Your task to perform on an android device: Go to Google Image 0: 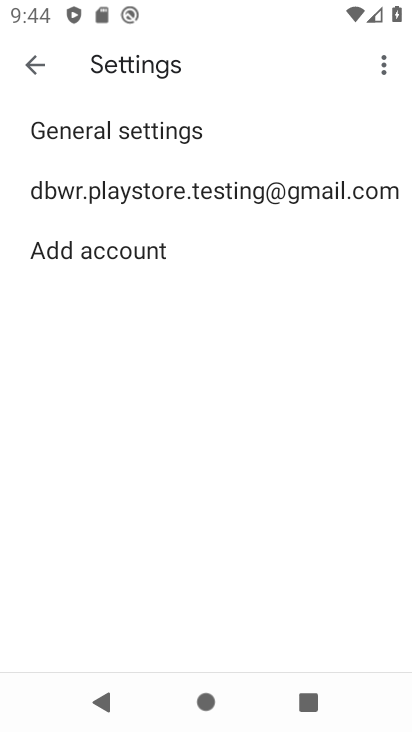
Step 0: press home button
Your task to perform on an android device: Go to Google Image 1: 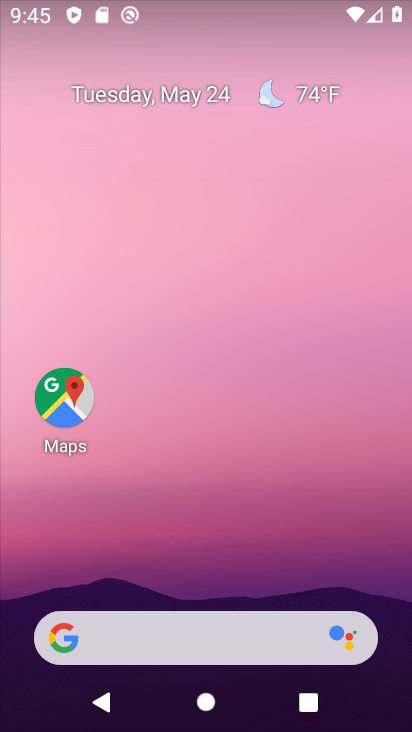
Step 1: click (147, 625)
Your task to perform on an android device: Go to Google Image 2: 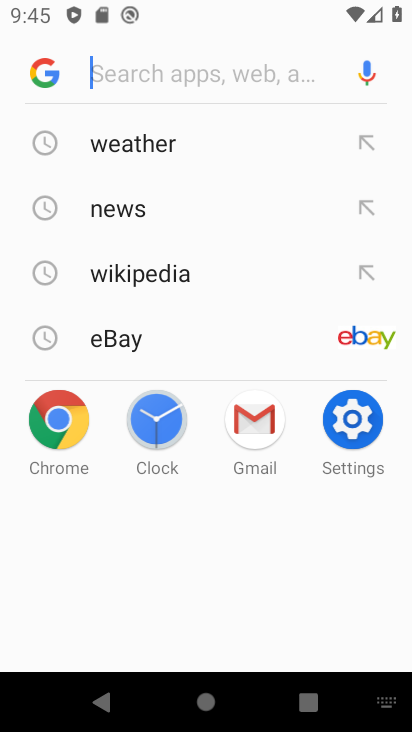
Step 2: task complete